Your task to perform on an android device: Go to accessibility settings Image 0: 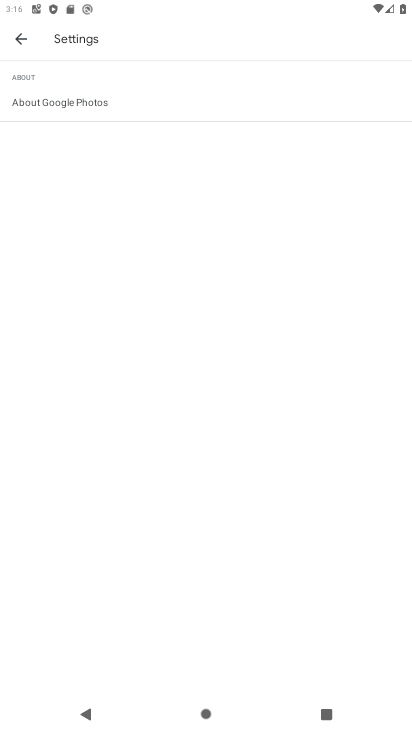
Step 0: press home button
Your task to perform on an android device: Go to accessibility settings Image 1: 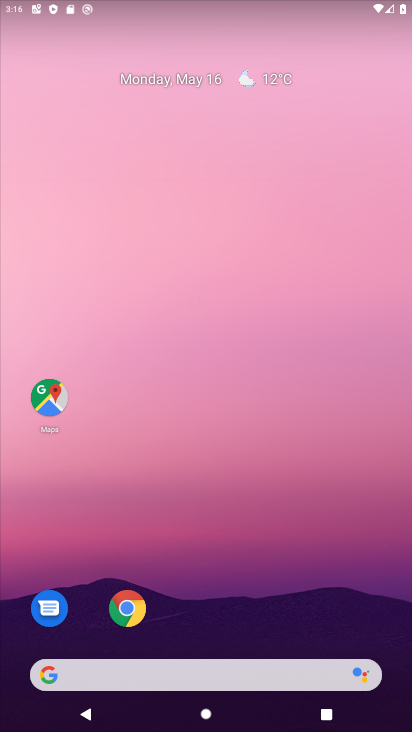
Step 1: drag from (208, 590) to (241, 137)
Your task to perform on an android device: Go to accessibility settings Image 2: 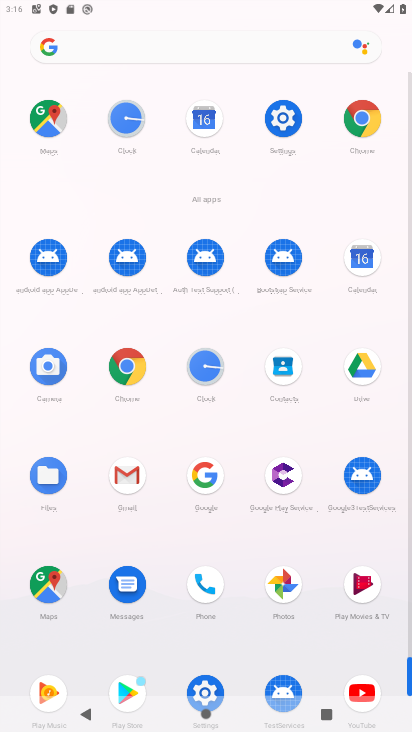
Step 2: click (284, 123)
Your task to perform on an android device: Go to accessibility settings Image 3: 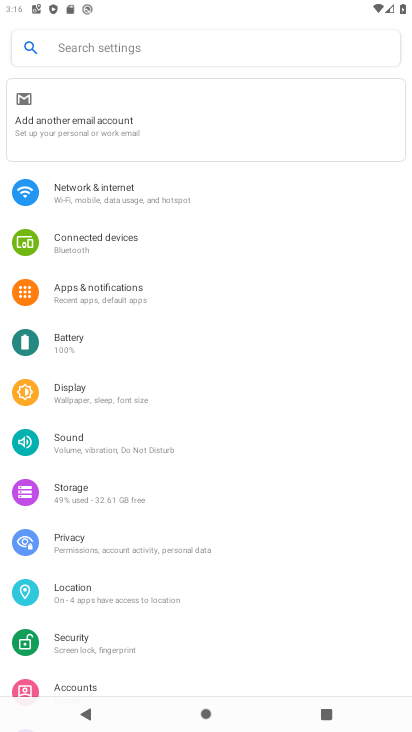
Step 3: drag from (141, 482) to (182, 146)
Your task to perform on an android device: Go to accessibility settings Image 4: 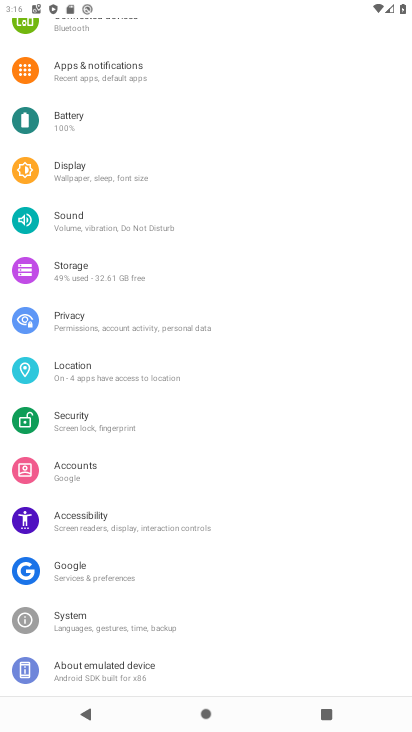
Step 4: click (109, 514)
Your task to perform on an android device: Go to accessibility settings Image 5: 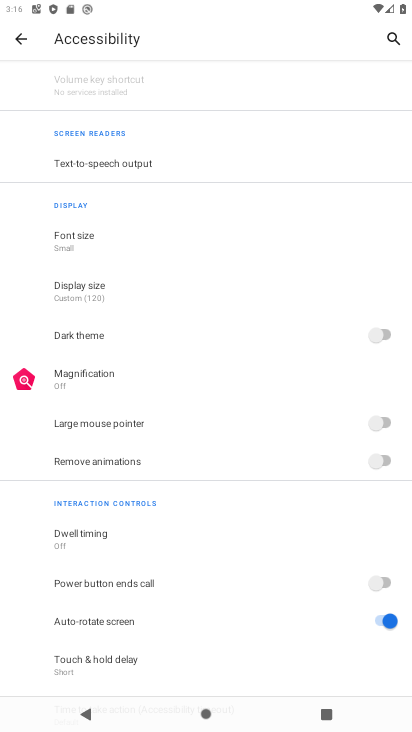
Step 5: task complete